Your task to perform on an android device: Search for bose quietcomfort 35 on bestbuy.com, select the first entry, and add it to the cart. Image 0: 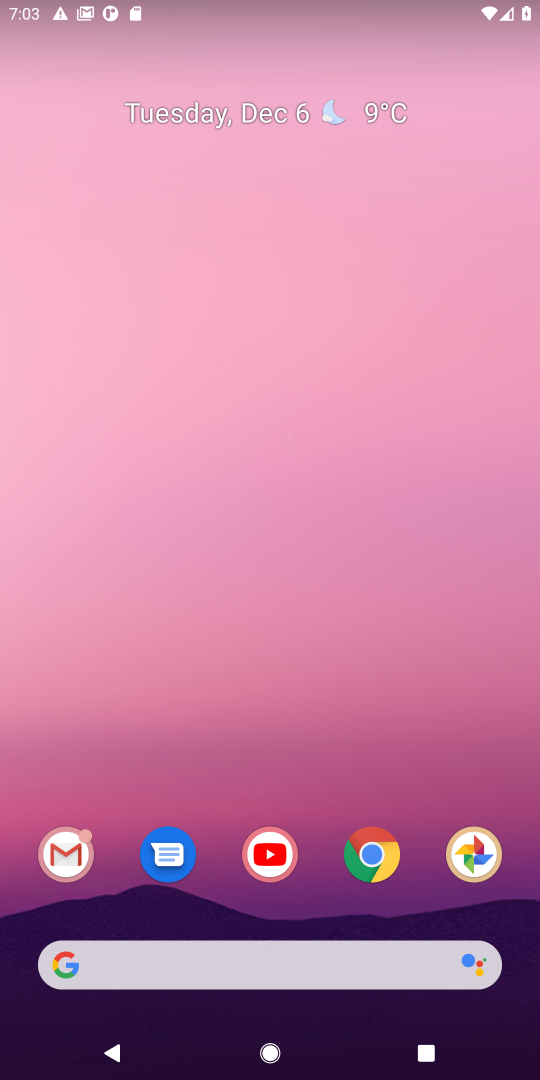
Step 0: click (384, 851)
Your task to perform on an android device: Search for bose quietcomfort 35 on bestbuy.com, select the first entry, and add it to the cart. Image 1: 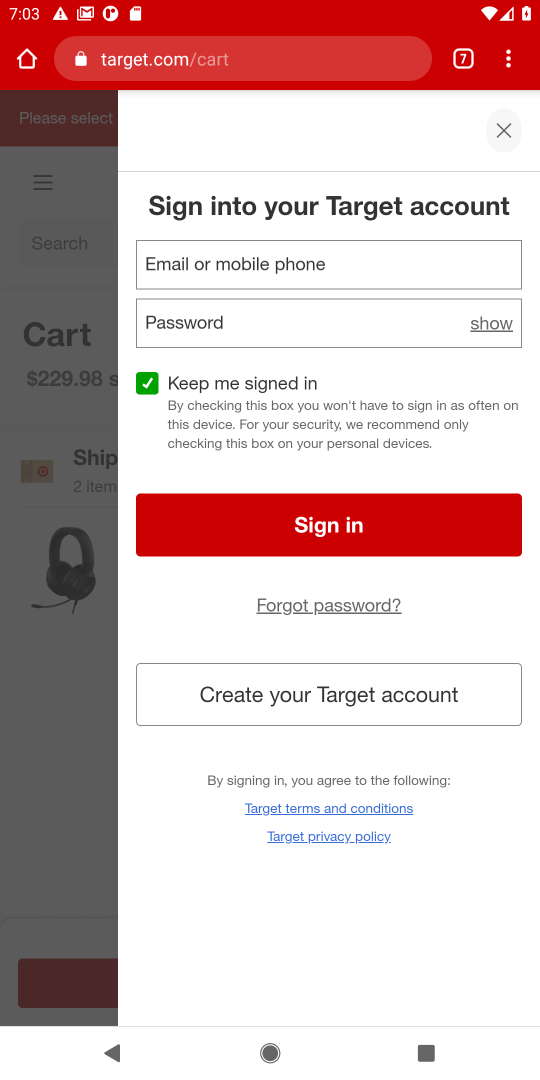
Step 1: click (469, 55)
Your task to perform on an android device: Search for bose quietcomfort 35 on bestbuy.com, select the first entry, and add it to the cart. Image 2: 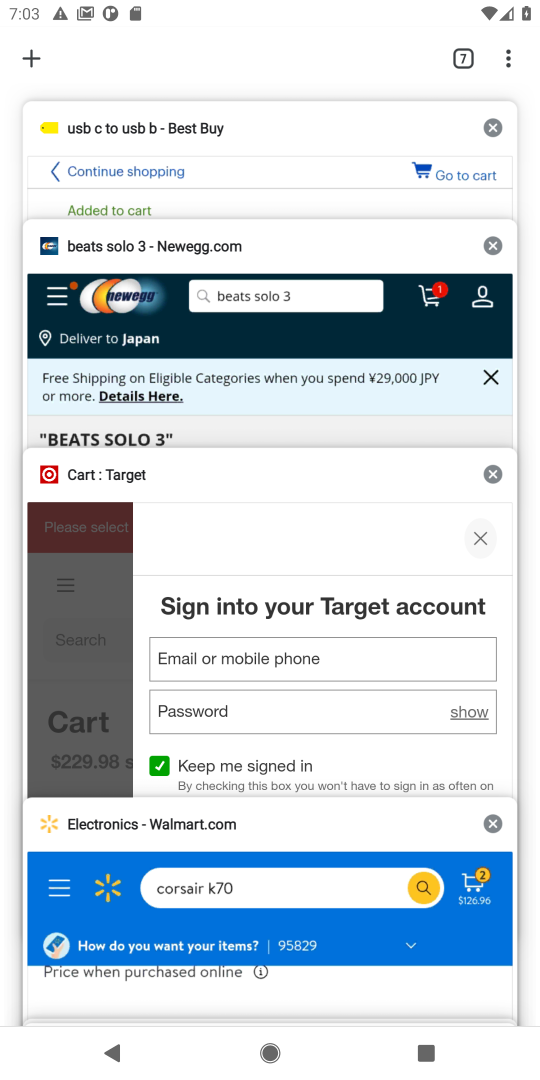
Step 2: click (298, 173)
Your task to perform on an android device: Search for bose quietcomfort 35 on bestbuy.com, select the first entry, and add it to the cart. Image 3: 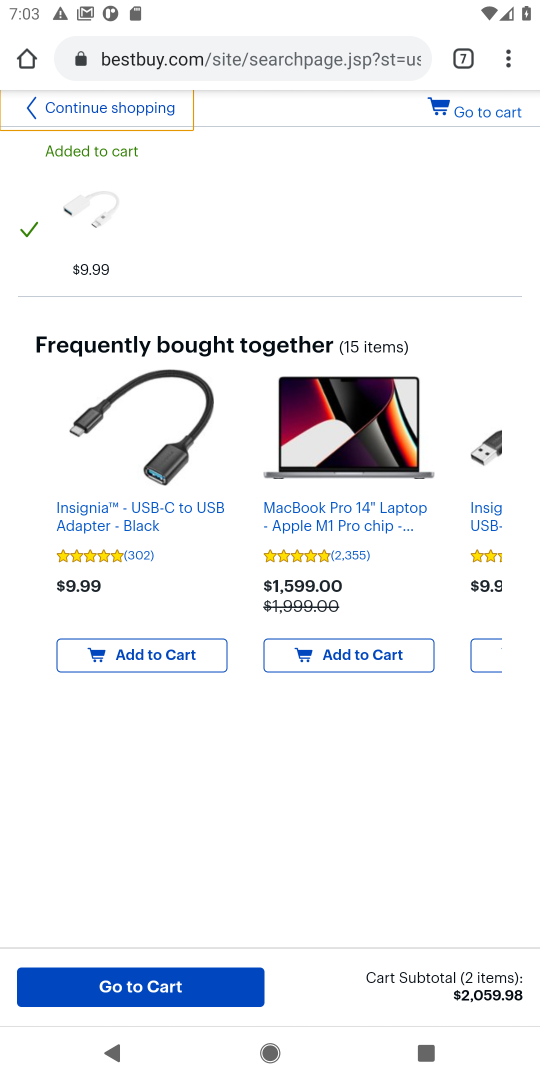
Step 3: click (125, 99)
Your task to perform on an android device: Search for bose quietcomfort 35 on bestbuy.com, select the first entry, and add it to the cart. Image 4: 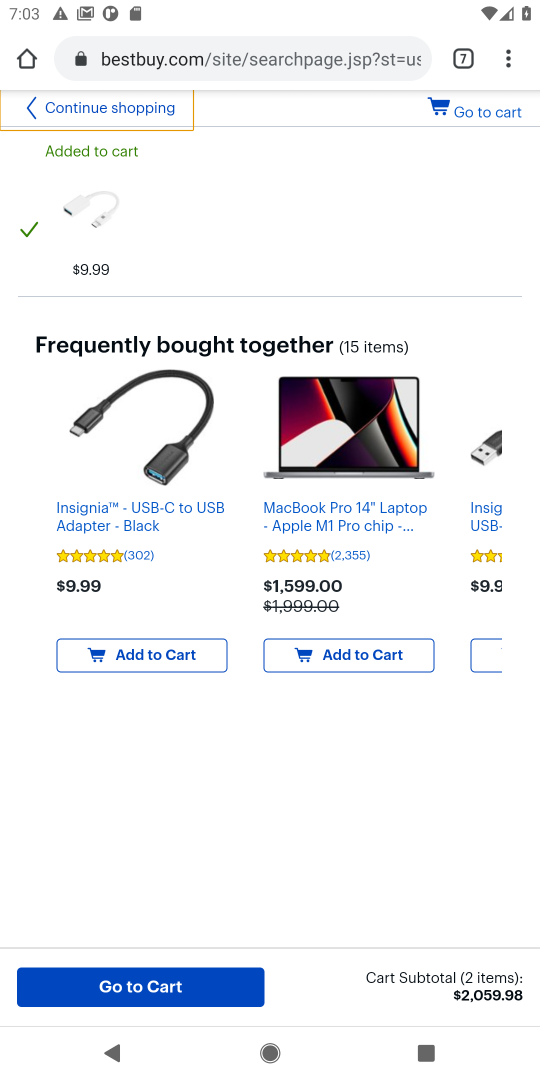
Step 4: click (134, 107)
Your task to perform on an android device: Search for bose quietcomfort 35 on bestbuy.com, select the first entry, and add it to the cart. Image 5: 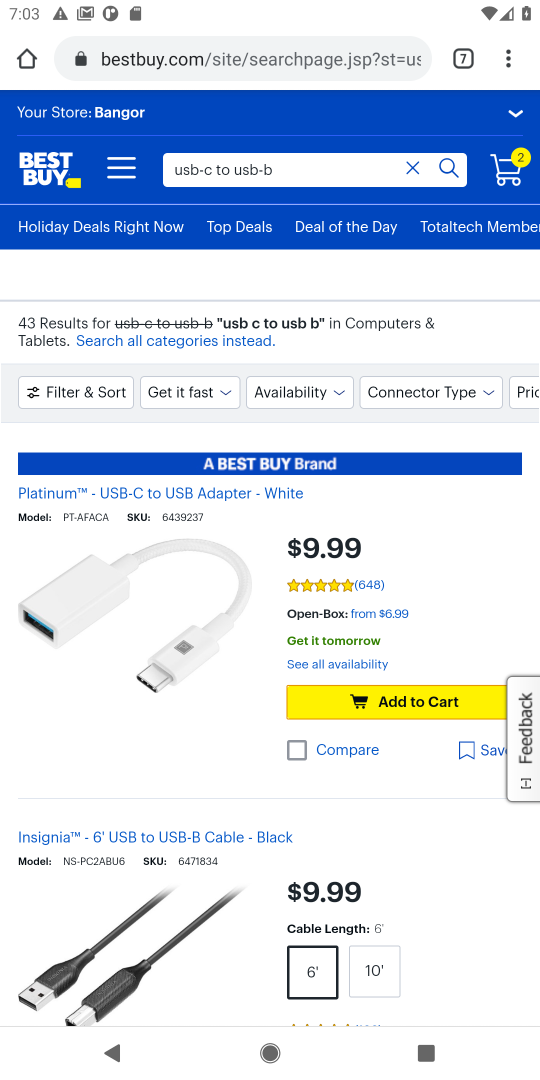
Step 5: click (413, 168)
Your task to perform on an android device: Search for bose quietcomfort 35 on bestbuy.com, select the first entry, and add it to the cart. Image 6: 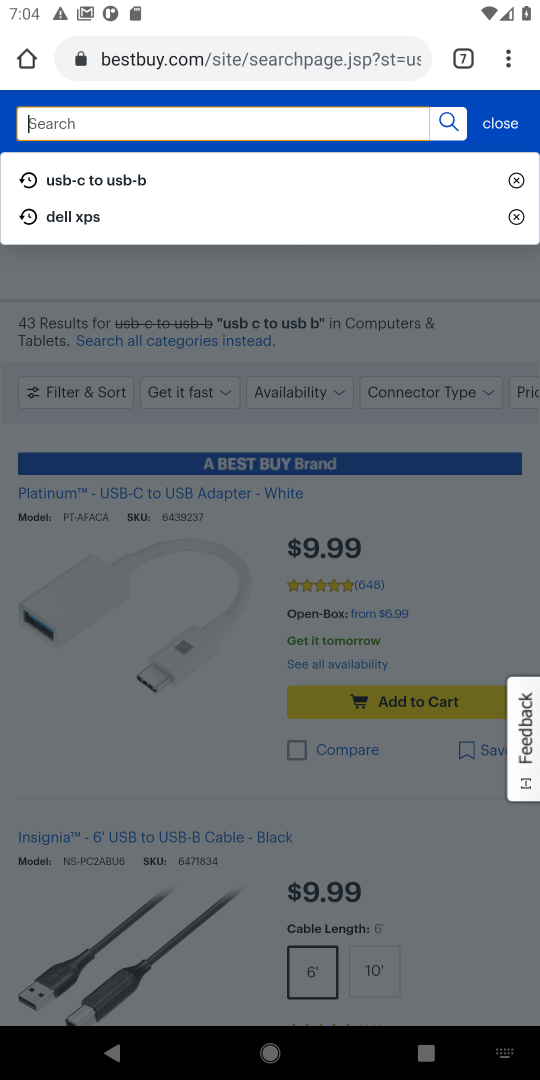
Step 6: type "bose quietcomfort 35 "
Your task to perform on an android device: Search for bose quietcomfort 35 on bestbuy.com, select the first entry, and add it to the cart. Image 7: 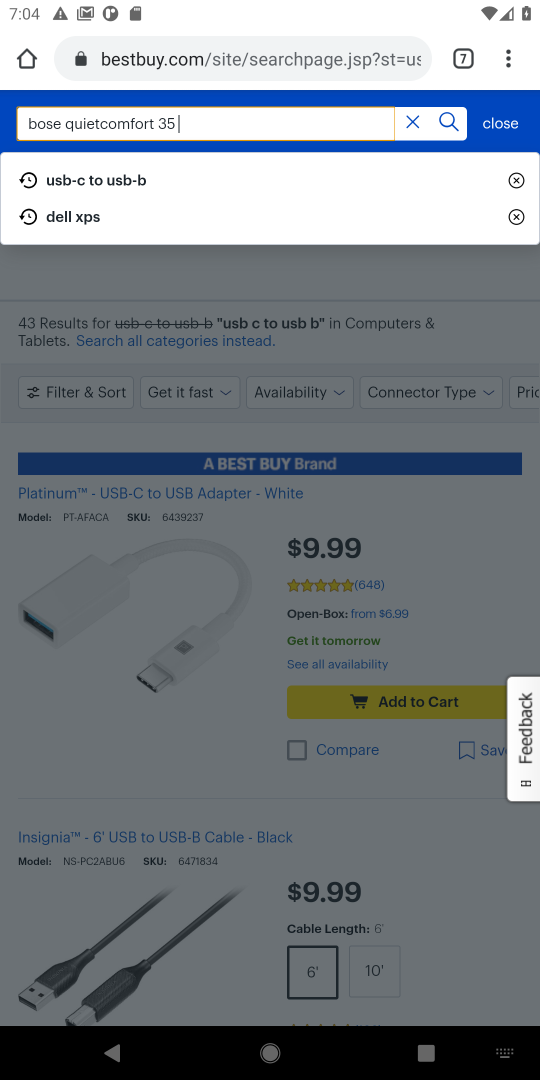
Step 7: click (451, 125)
Your task to perform on an android device: Search for bose quietcomfort 35 on bestbuy.com, select the first entry, and add it to the cart. Image 8: 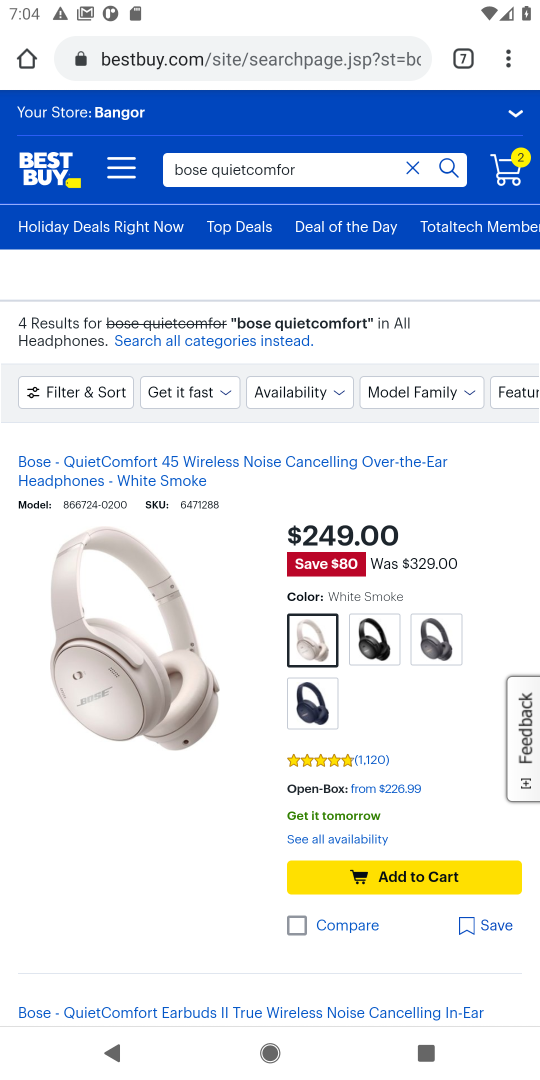
Step 8: click (352, 884)
Your task to perform on an android device: Search for bose quietcomfort 35 on bestbuy.com, select the first entry, and add it to the cart. Image 9: 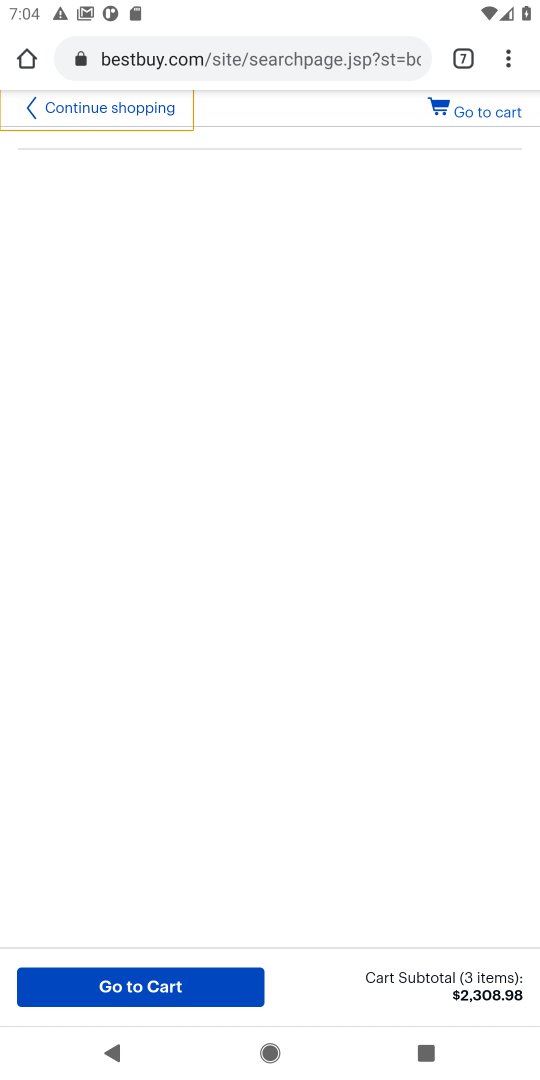
Step 9: task complete